Your task to perform on an android device: Open calendar and show me the fourth week of next month Image 0: 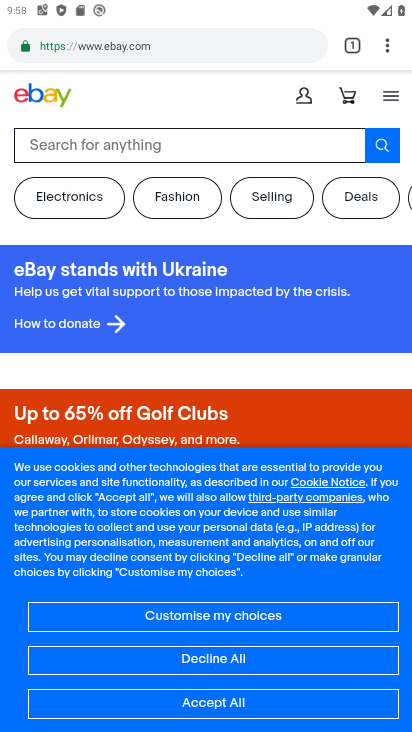
Step 0: press home button
Your task to perform on an android device: Open calendar and show me the fourth week of next month Image 1: 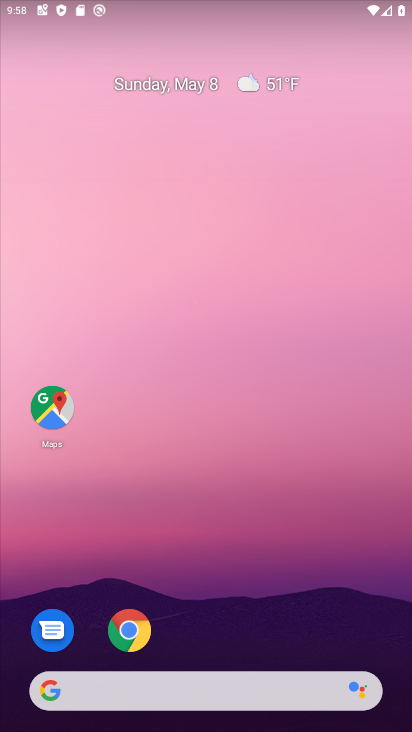
Step 1: drag from (369, 625) to (272, 136)
Your task to perform on an android device: Open calendar and show me the fourth week of next month Image 2: 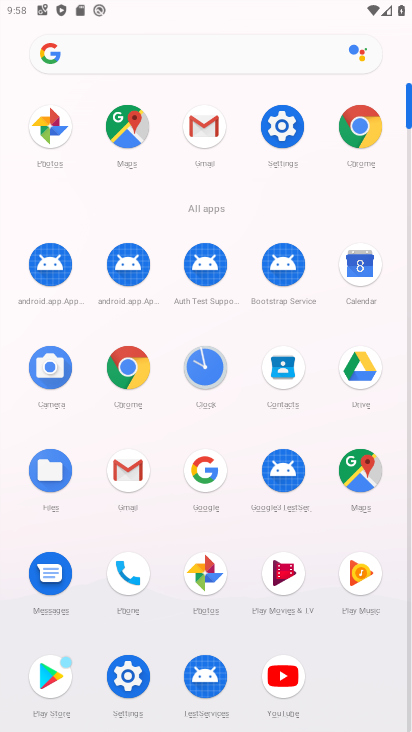
Step 2: click (367, 266)
Your task to perform on an android device: Open calendar and show me the fourth week of next month Image 3: 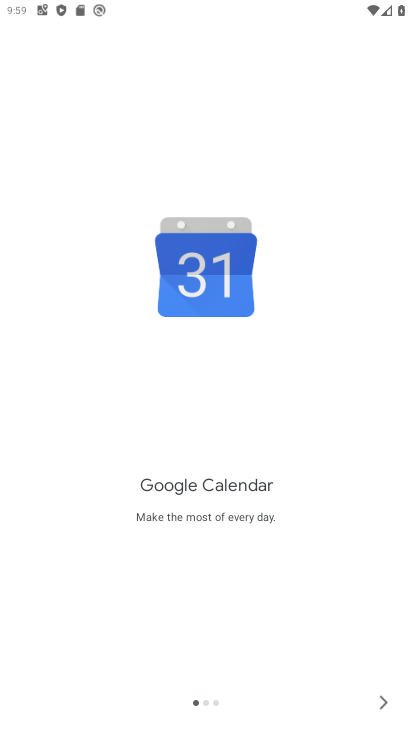
Step 3: click (385, 694)
Your task to perform on an android device: Open calendar and show me the fourth week of next month Image 4: 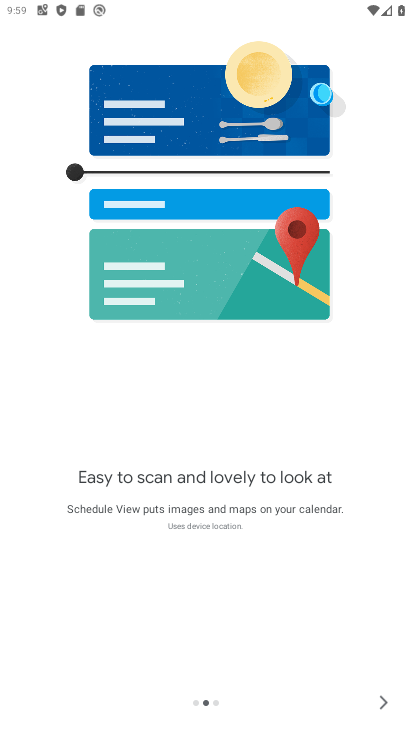
Step 4: click (385, 694)
Your task to perform on an android device: Open calendar and show me the fourth week of next month Image 5: 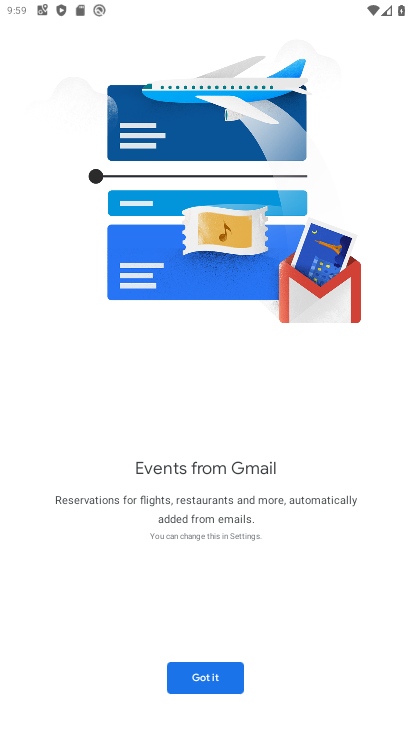
Step 5: click (168, 665)
Your task to perform on an android device: Open calendar and show me the fourth week of next month Image 6: 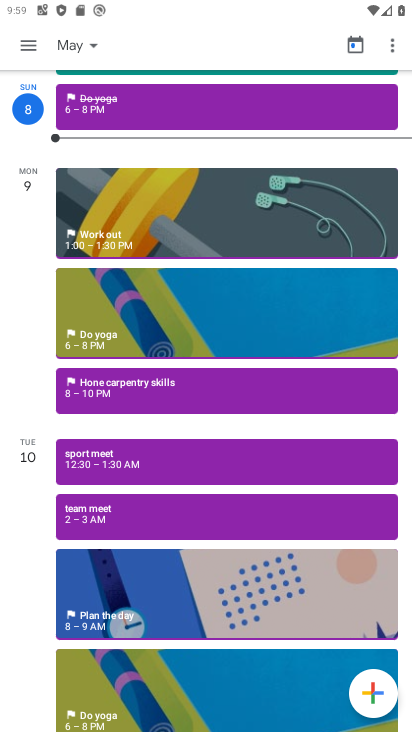
Step 6: click (64, 45)
Your task to perform on an android device: Open calendar and show me the fourth week of next month Image 7: 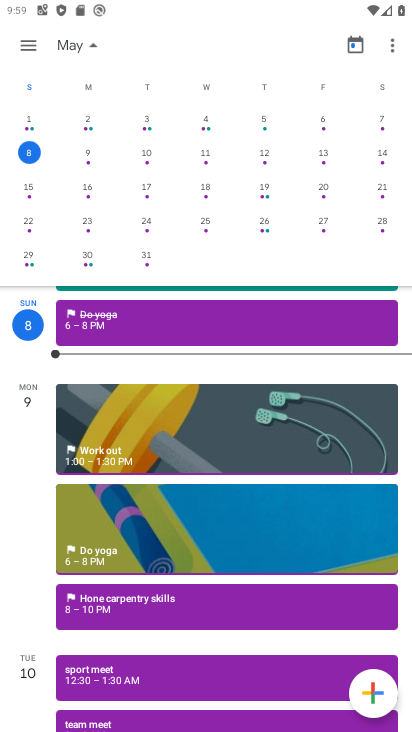
Step 7: drag from (355, 189) to (3, 136)
Your task to perform on an android device: Open calendar and show me the fourth week of next month Image 8: 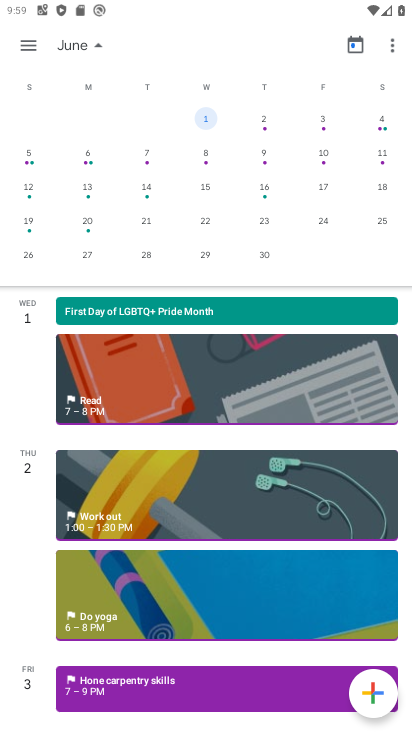
Step 8: click (91, 256)
Your task to perform on an android device: Open calendar and show me the fourth week of next month Image 9: 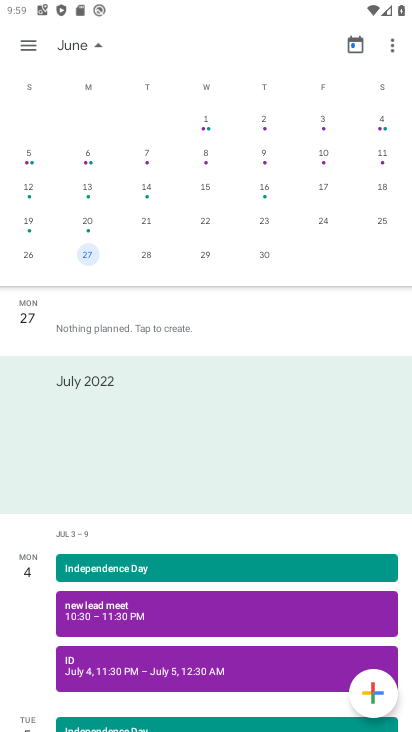
Step 9: task complete